Your task to perform on an android device: Go to Android settings Image 0: 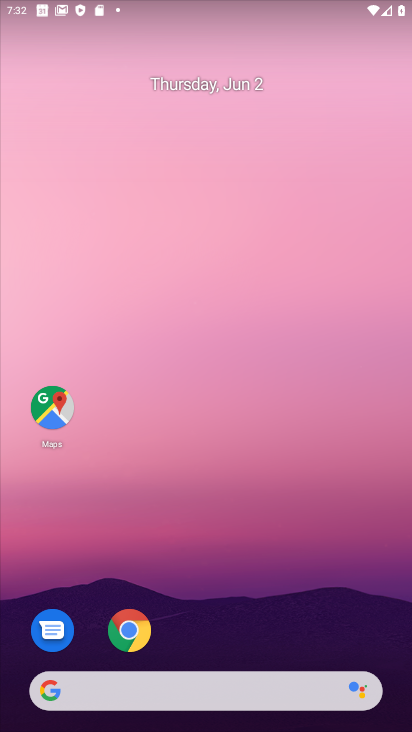
Step 0: drag from (143, 727) to (152, 154)
Your task to perform on an android device: Go to Android settings Image 1: 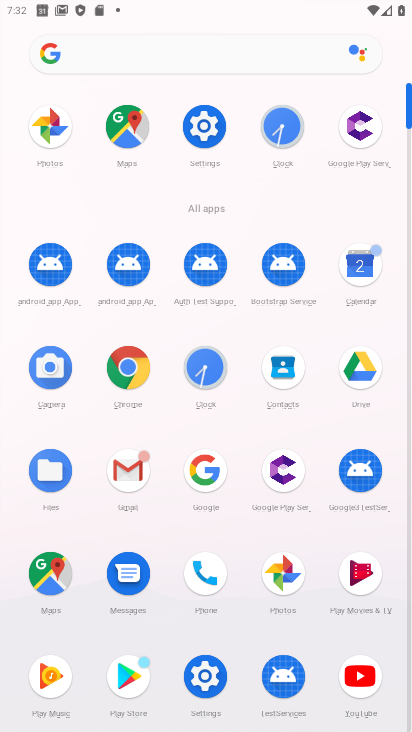
Step 1: click (202, 122)
Your task to perform on an android device: Go to Android settings Image 2: 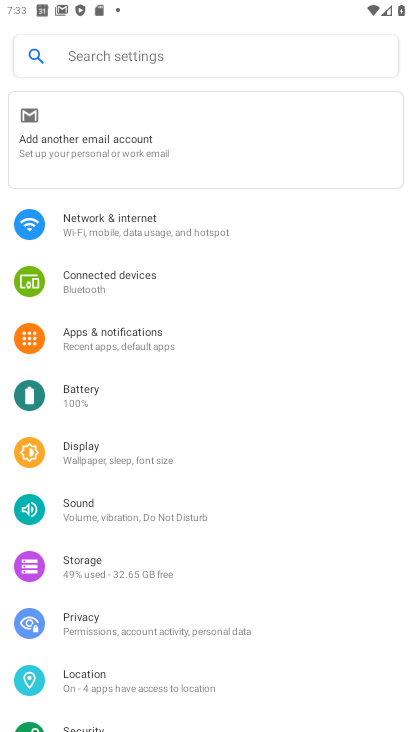
Step 2: task complete